Your task to perform on an android device: turn off improve location accuracy Image 0: 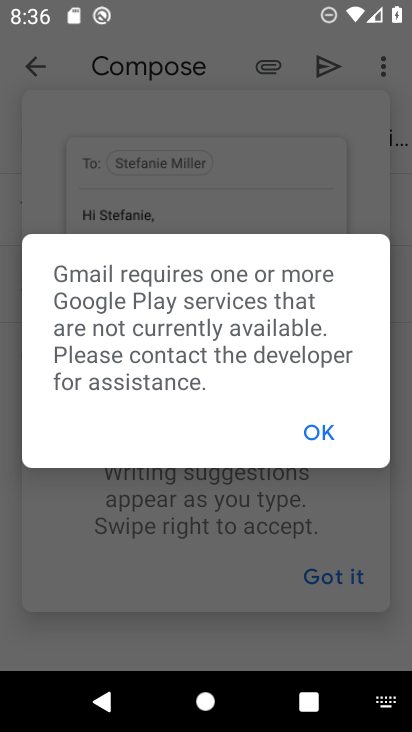
Step 0: press home button
Your task to perform on an android device: turn off improve location accuracy Image 1: 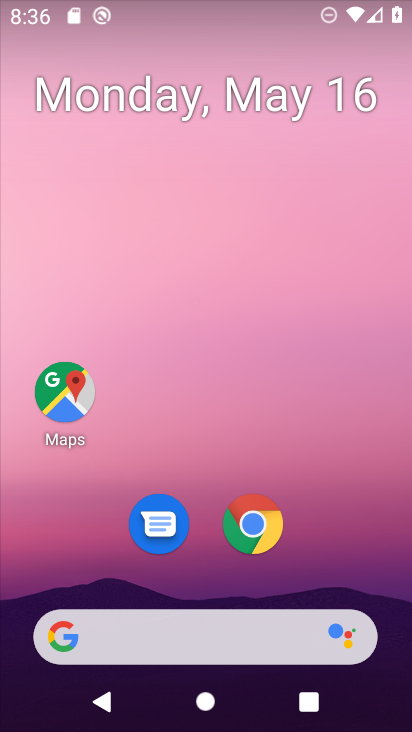
Step 1: drag from (191, 506) to (206, 54)
Your task to perform on an android device: turn off improve location accuracy Image 2: 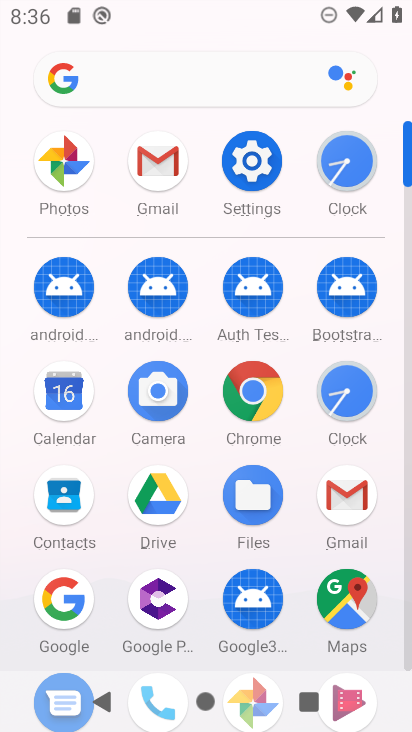
Step 2: click (241, 172)
Your task to perform on an android device: turn off improve location accuracy Image 3: 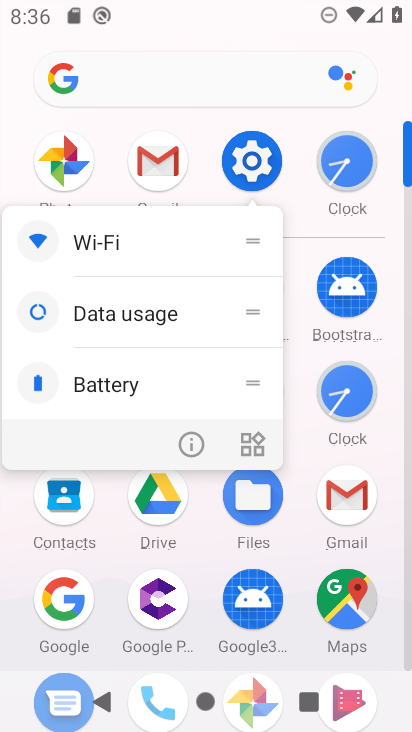
Step 3: click (252, 151)
Your task to perform on an android device: turn off improve location accuracy Image 4: 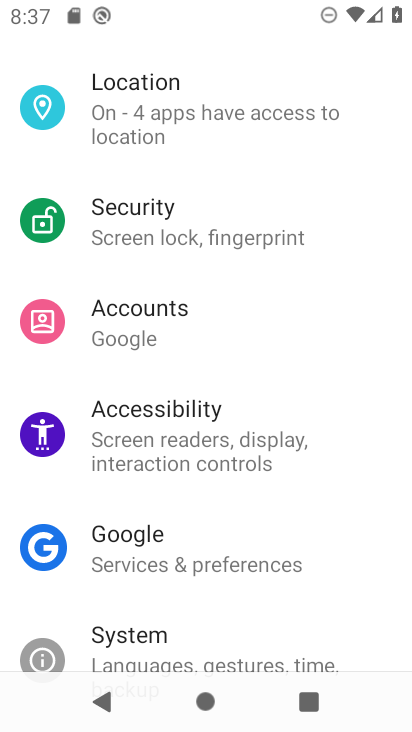
Step 4: click (258, 119)
Your task to perform on an android device: turn off improve location accuracy Image 5: 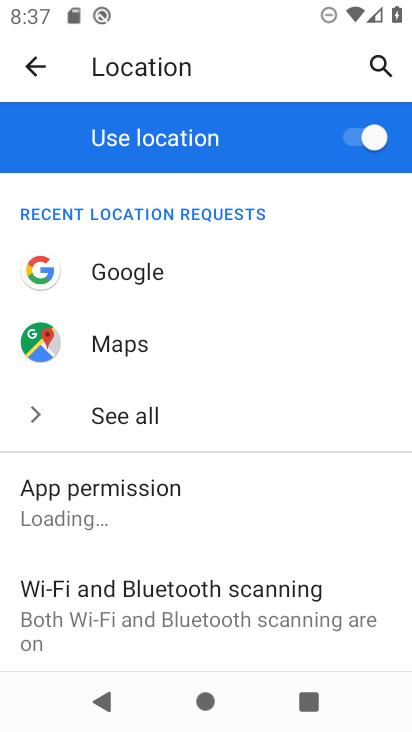
Step 5: drag from (167, 508) to (189, 211)
Your task to perform on an android device: turn off improve location accuracy Image 6: 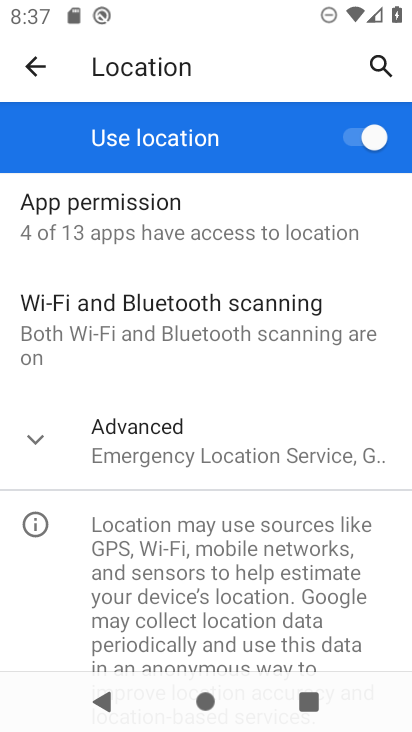
Step 6: click (35, 433)
Your task to perform on an android device: turn off improve location accuracy Image 7: 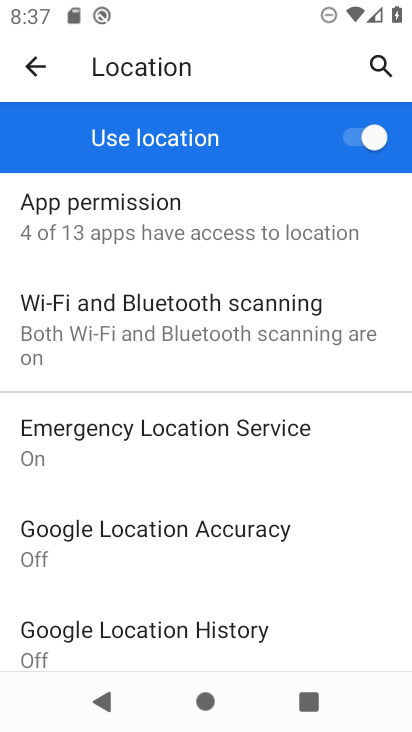
Step 7: click (162, 556)
Your task to perform on an android device: turn off improve location accuracy Image 8: 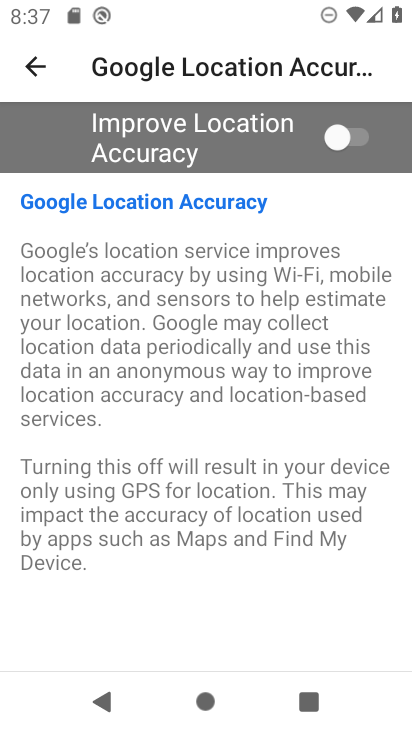
Step 8: task complete